Your task to perform on an android device: What's the weather going to be tomorrow? Image 0: 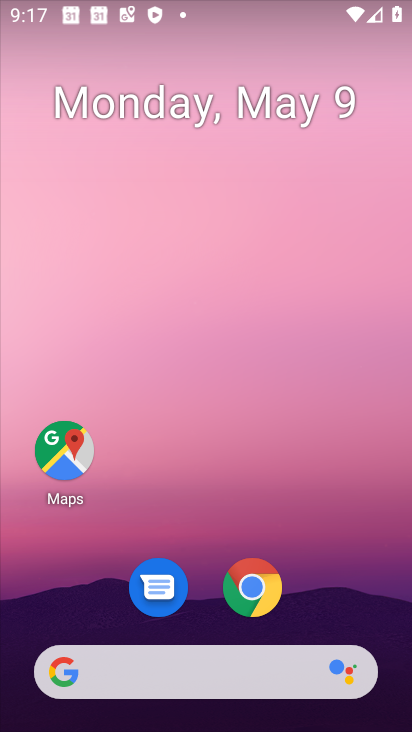
Step 0: click (120, 690)
Your task to perform on an android device: What's the weather going to be tomorrow? Image 1: 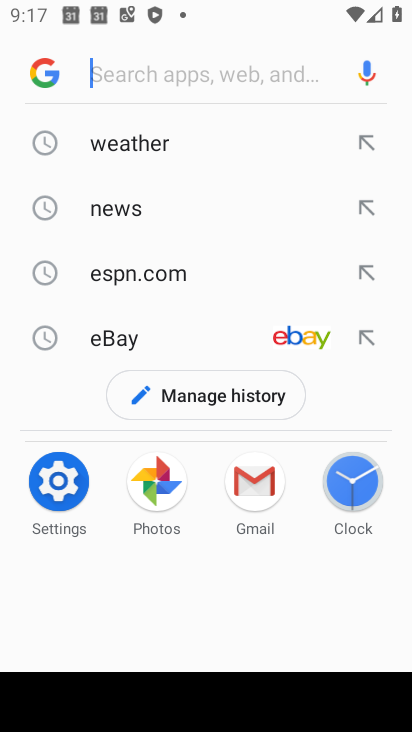
Step 1: click (112, 159)
Your task to perform on an android device: What's the weather going to be tomorrow? Image 2: 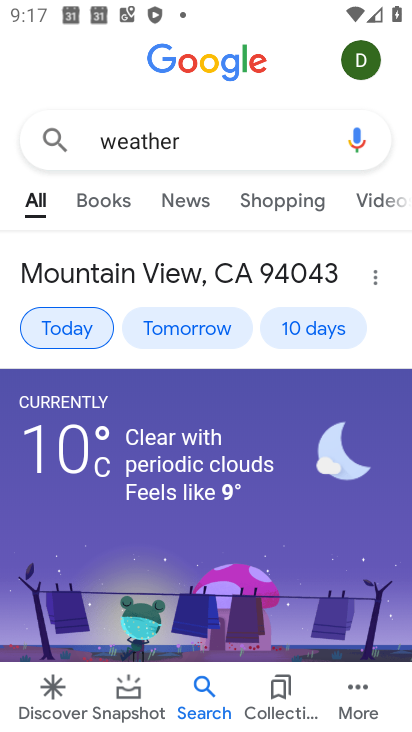
Step 2: task complete